Your task to perform on an android device: See recent photos Image 0: 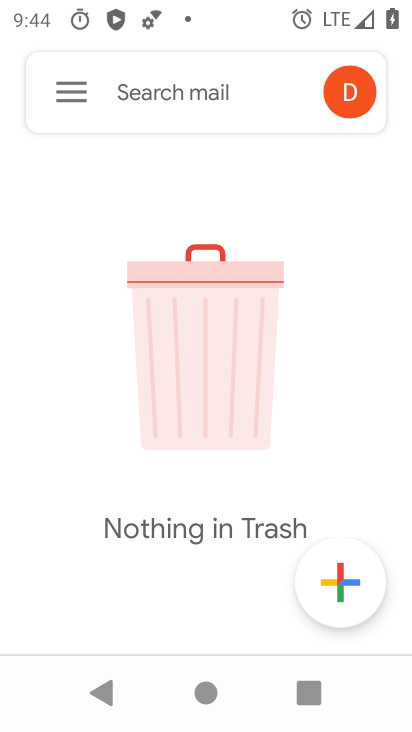
Step 0: press home button
Your task to perform on an android device: See recent photos Image 1: 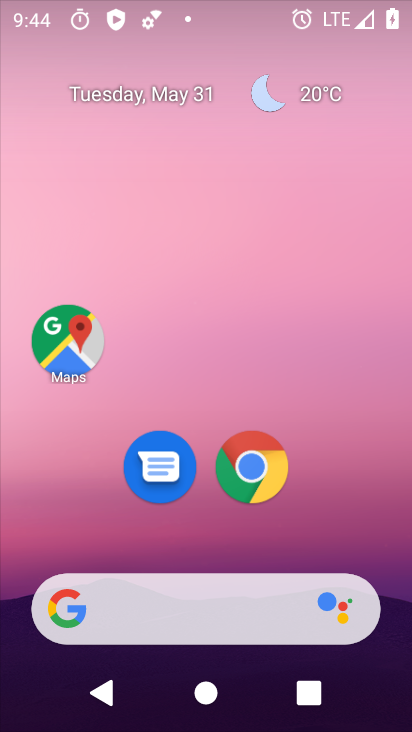
Step 1: drag from (218, 545) to (359, 4)
Your task to perform on an android device: See recent photos Image 2: 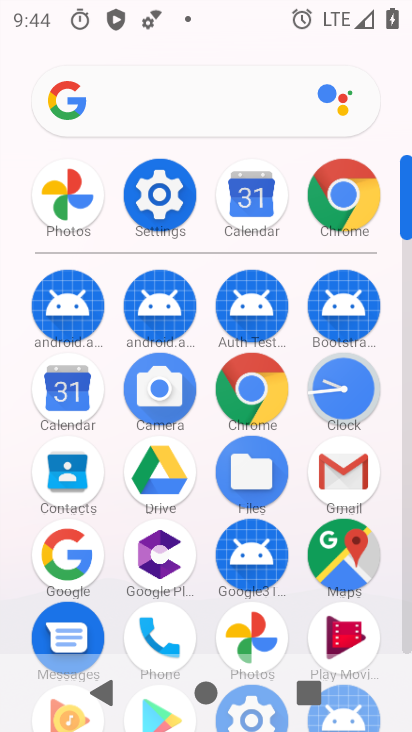
Step 2: click (244, 609)
Your task to perform on an android device: See recent photos Image 3: 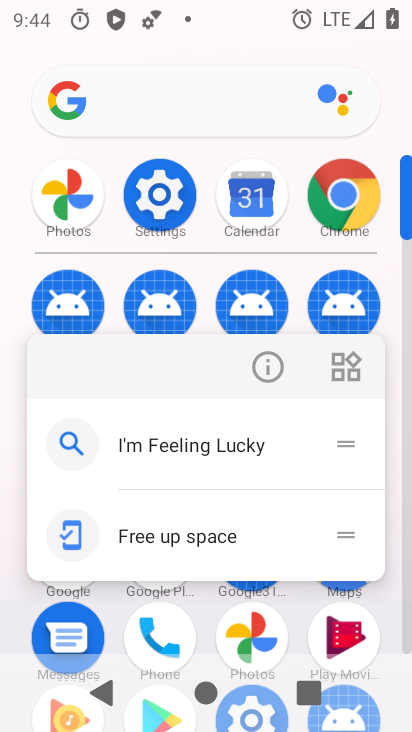
Step 3: click (274, 372)
Your task to perform on an android device: See recent photos Image 4: 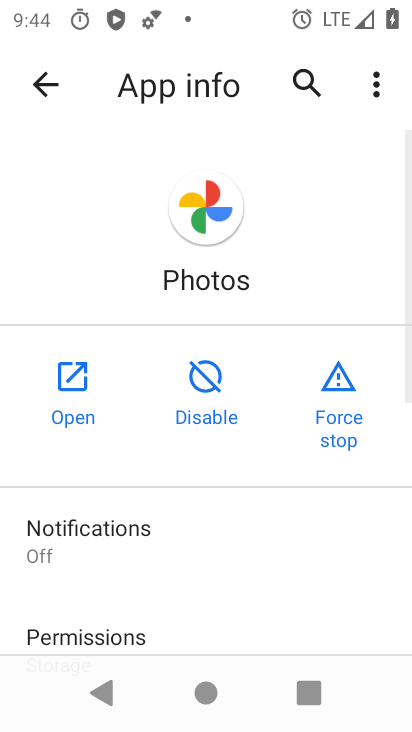
Step 4: click (65, 386)
Your task to perform on an android device: See recent photos Image 5: 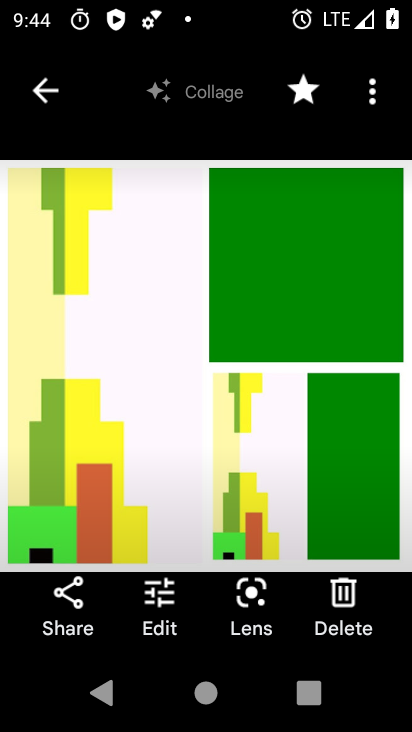
Step 5: drag from (336, 388) to (2, 183)
Your task to perform on an android device: See recent photos Image 6: 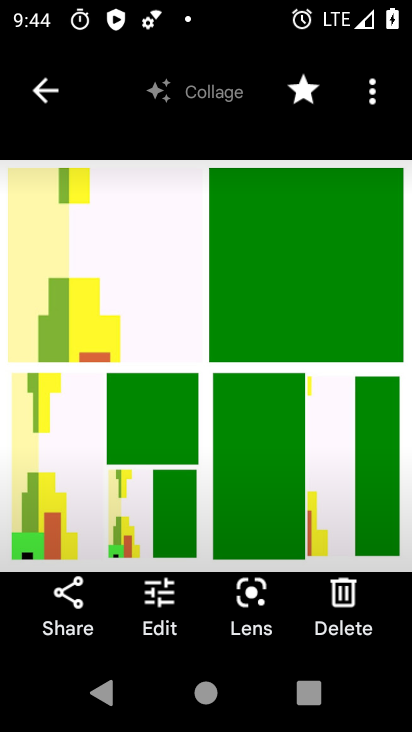
Step 6: click (34, 95)
Your task to perform on an android device: See recent photos Image 7: 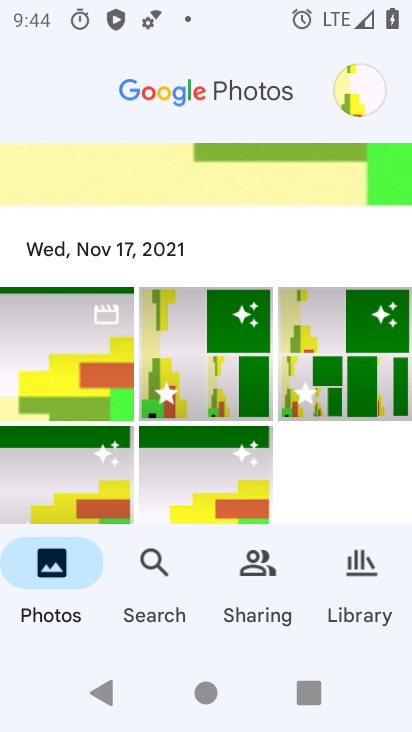
Step 7: click (70, 323)
Your task to perform on an android device: See recent photos Image 8: 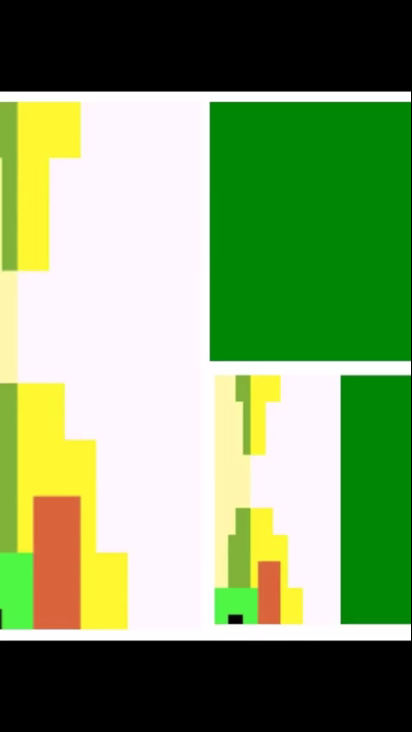
Step 8: task complete